Your task to perform on an android device: Open Youtube and go to the subscriptions tab Image 0: 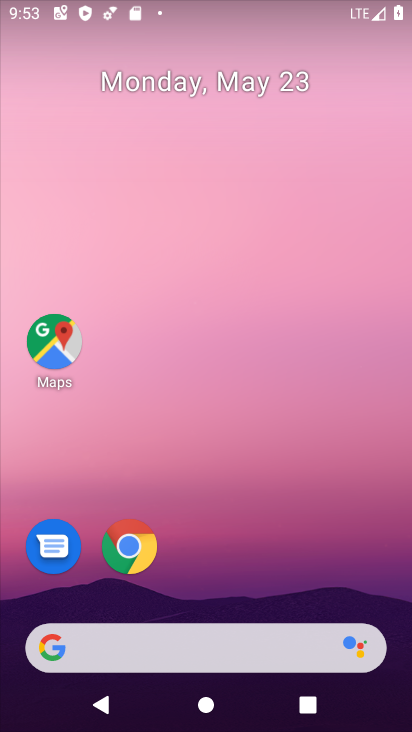
Step 0: drag from (385, 613) to (323, 222)
Your task to perform on an android device: Open Youtube and go to the subscriptions tab Image 1: 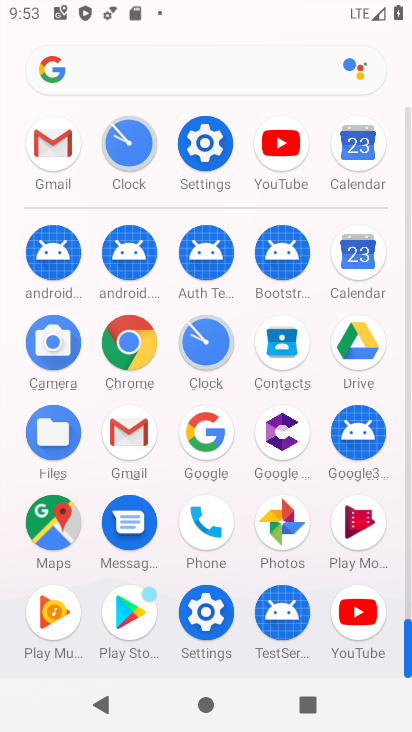
Step 1: click (354, 614)
Your task to perform on an android device: Open Youtube and go to the subscriptions tab Image 2: 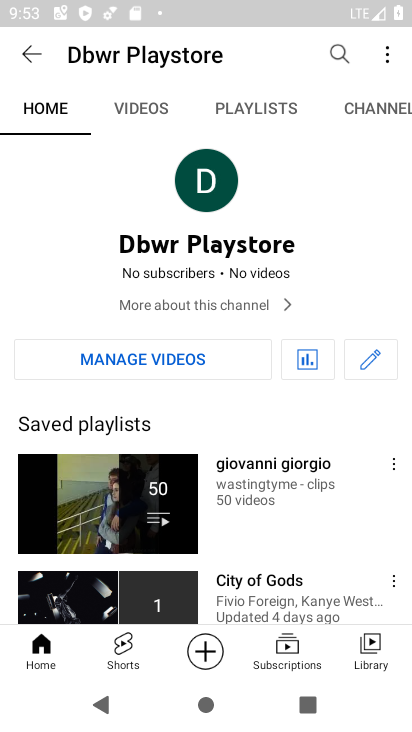
Step 2: click (284, 641)
Your task to perform on an android device: Open Youtube and go to the subscriptions tab Image 3: 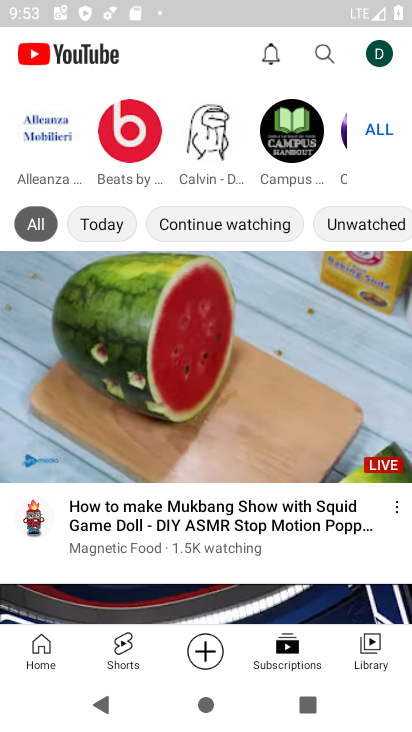
Step 3: task complete